Your task to perform on an android device: Show the shopping cart on target. Search for usb-c to usb-b on target, select the first entry, add it to the cart, then select checkout. Image 0: 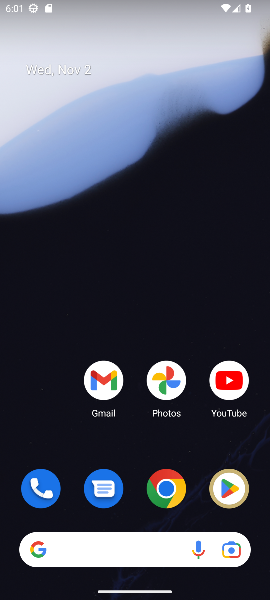
Step 0: click (163, 489)
Your task to perform on an android device: Show the shopping cart on target. Search for usb-c to usb-b on target, select the first entry, add it to the cart, then select checkout. Image 1: 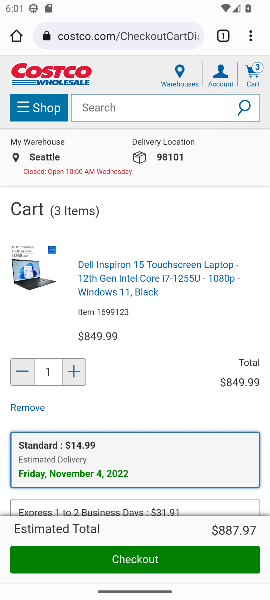
Step 1: click (112, 31)
Your task to perform on an android device: Show the shopping cart on target. Search for usb-c to usb-b on target, select the first entry, add it to the cart, then select checkout. Image 2: 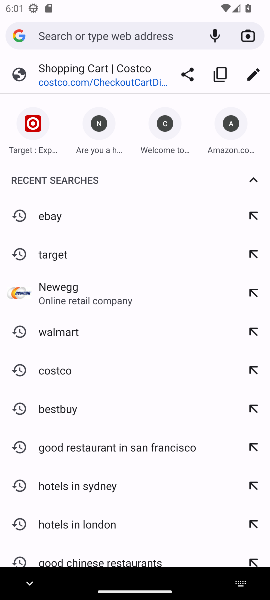
Step 2: click (69, 260)
Your task to perform on an android device: Show the shopping cart on target. Search for usb-c to usb-b on target, select the first entry, add it to the cart, then select checkout. Image 3: 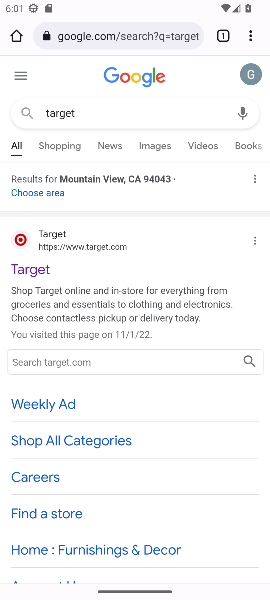
Step 3: click (33, 271)
Your task to perform on an android device: Show the shopping cart on target. Search for usb-c to usb-b on target, select the first entry, add it to the cart, then select checkout. Image 4: 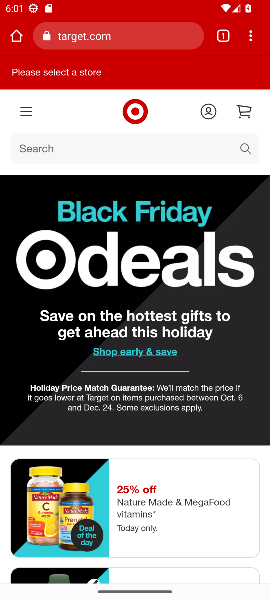
Step 4: click (243, 146)
Your task to perform on an android device: Show the shopping cart on target. Search for usb-c to usb-b on target, select the first entry, add it to the cart, then select checkout. Image 5: 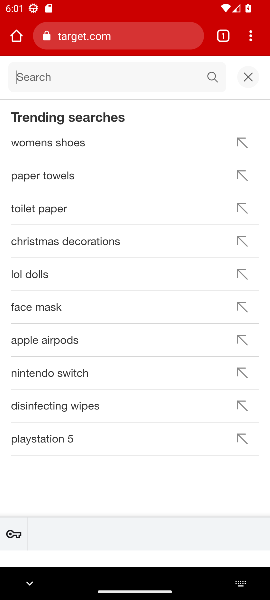
Step 5: type "usb-c to usb-a"
Your task to perform on an android device: Show the shopping cart on target. Search for usb-c to usb-b on target, select the first entry, add it to the cart, then select checkout. Image 6: 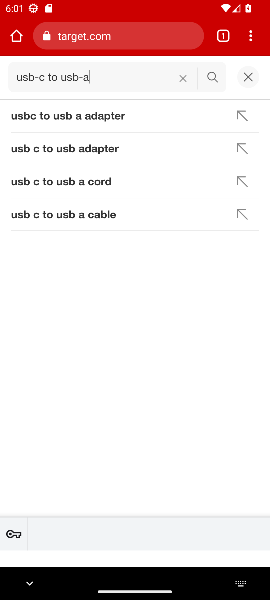
Step 6: click (66, 180)
Your task to perform on an android device: Show the shopping cart on target. Search for usb-c to usb-b on target, select the first entry, add it to the cart, then select checkout. Image 7: 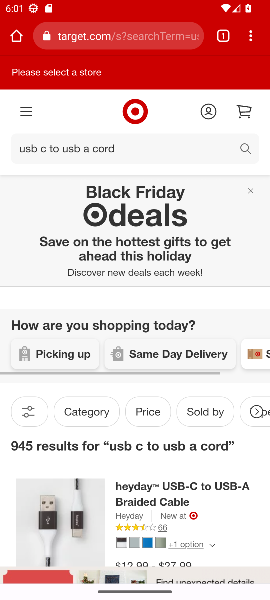
Step 7: drag from (154, 468) to (141, 180)
Your task to perform on an android device: Show the shopping cart on target. Search for usb-c to usb-b on target, select the first entry, add it to the cart, then select checkout. Image 8: 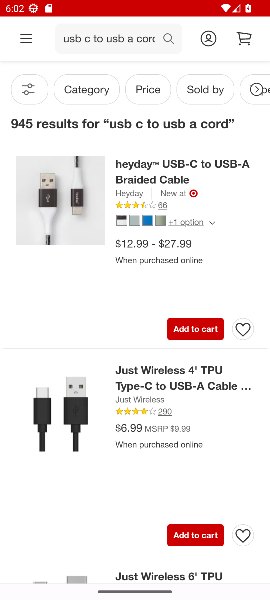
Step 8: click (195, 332)
Your task to perform on an android device: Show the shopping cart on target. Search for usb-c to usb-b on target, select the first entry, add it to the cart, then select checkout. Image 9: 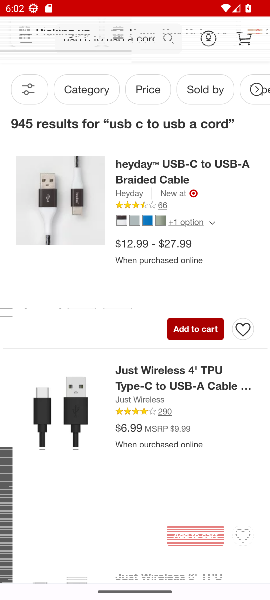
Step 9: click (185, 328)
Your task to perform on an android device: Show the shopping cart on target. Search for usb-c to usb-b on target, select the first entry, add it to the cart, then select checkout. Image 10: 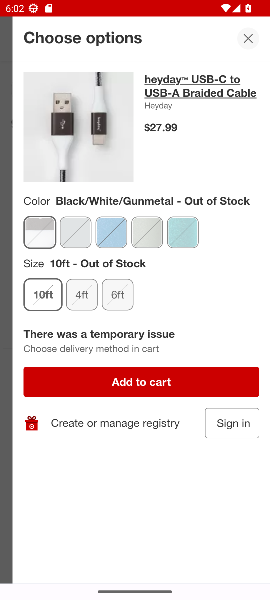
Step 10: drag from (199, 459) to (172, 244)
Your task to perform on an android device: Show the shopping cart on target. Search for usb-c to usb-b on target, select the first entry, add it to the cart, then select checkout. Image 11: 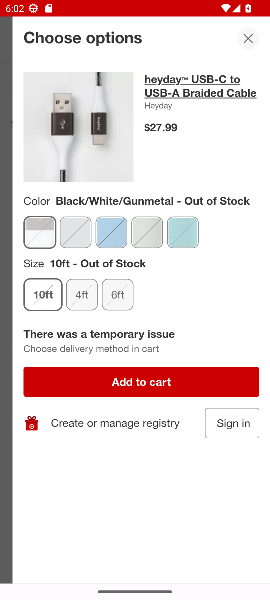
Step 11: click (129, 377)
Your task to perform on an android device: Show the shopping cart on target. Search for usb-c to usb-b on target, select the first entry, add it to the cart, then select checkout. Image 12: 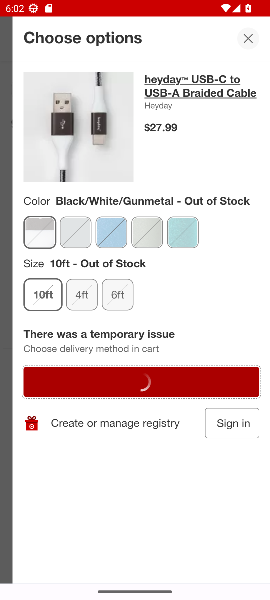
Step 12: task complete